Your task to perform on an android device: toggle javascript in the chrome app Image 0: 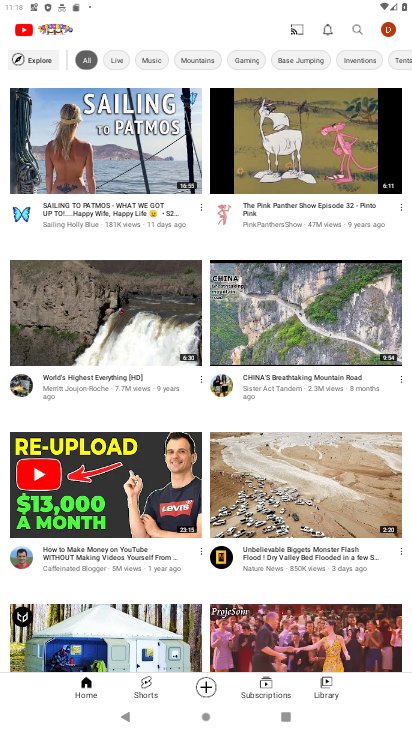
Step 0: press home button
Your task to perform on an android device: toggle javascript in the chrome app Image 1: 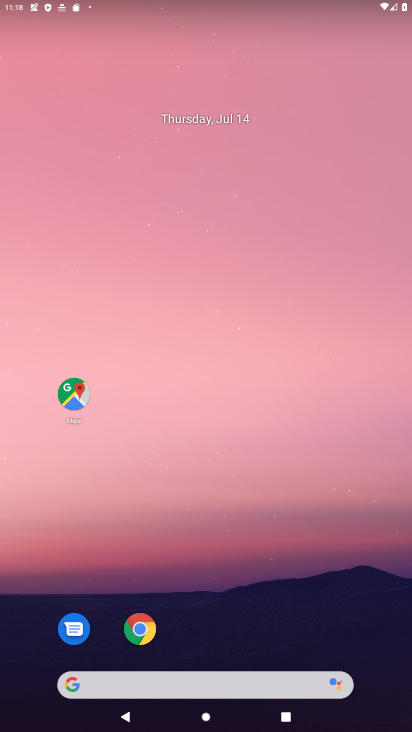
Step 1: click (143, 636)
Your task to perform on an android device: toggle javascript in the chrome app Image 2: 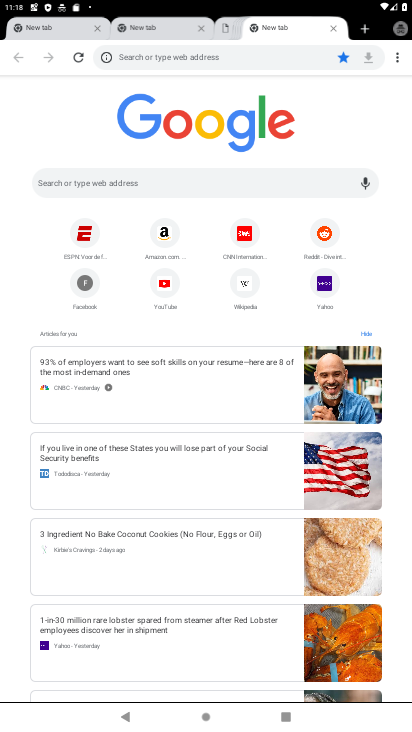
Step 2: drag from (398, 58) to (262, 258)
Your task to perform on an android device: toggle javascript in the chrome app Image 3: 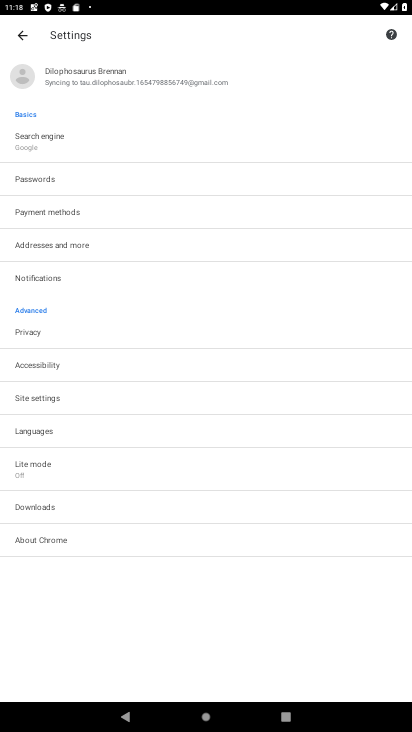
Step 3: click (35, 400)
Your task to perform on an android device: toggle javascript in the chrome app Image 4: 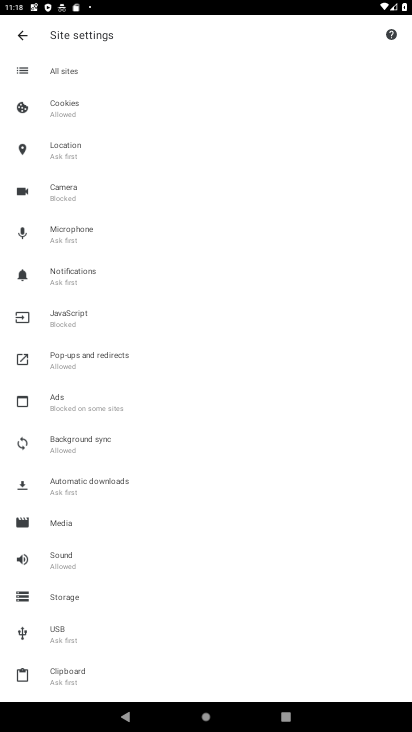
Step 4: click (69, 315)
Your task to perform on an android device: toggle javascript in the chrome app Image 5: 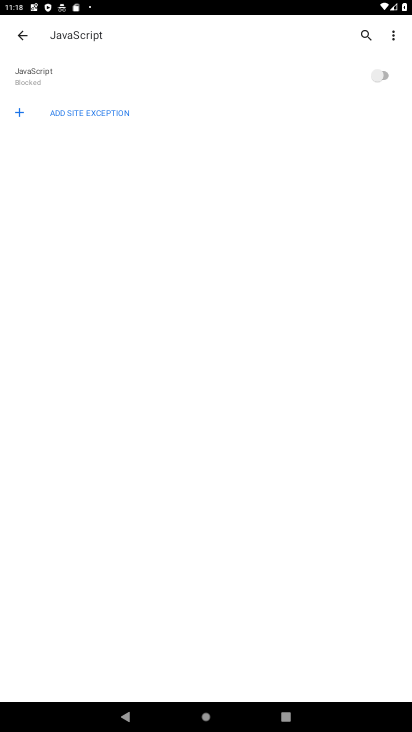
Step 5: click (387, 75)
Your task to perform on an android device: toggle javascript in the chrome app Image 6: 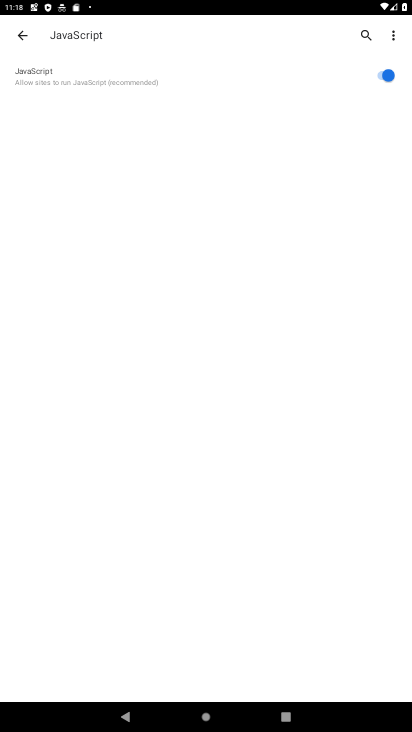
Step 6: task complete